Your task to perform on an android device: open chrome privacy settings Image 0: 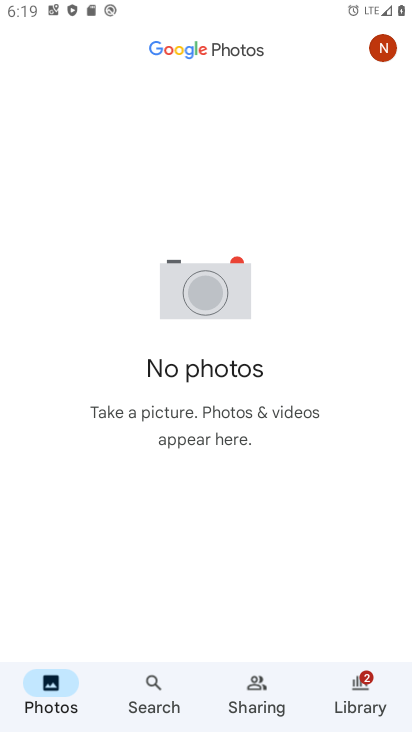
Step 0: press home button
Your task to perform on an android device: open chrome privacy settings Image 1: 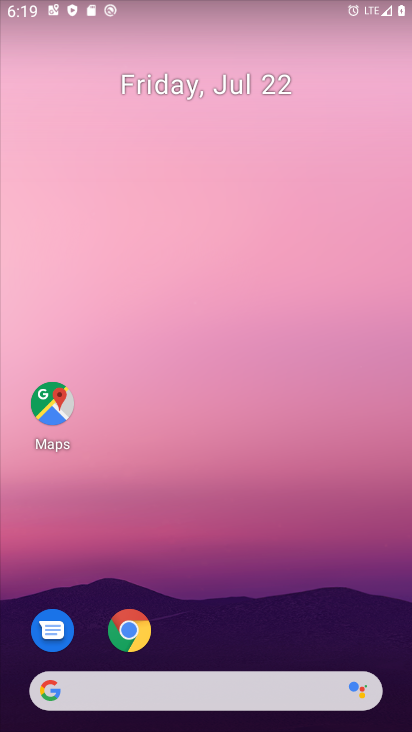
Step 1: drag from (284, 708) to (285, 194)
Your task to perform on an android device: open chrome privacy settings Image 2: 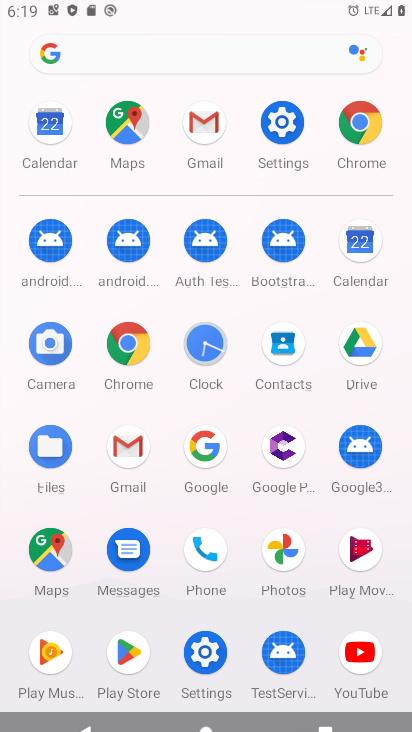
Step 2: click (285, 118)
Your task to perform on an android device: open chrome privacy settings Image 3: 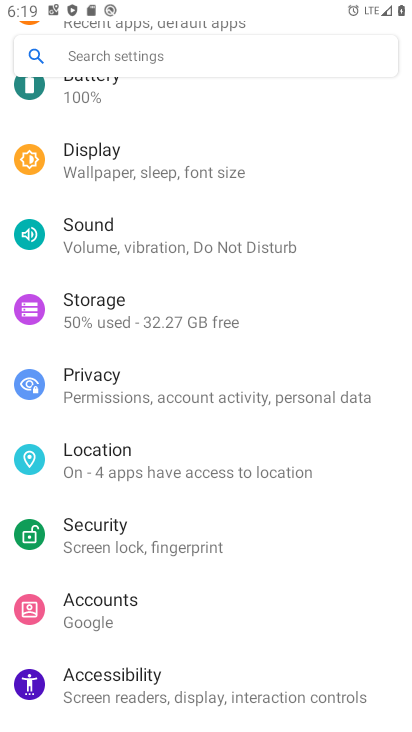
Step 3: click (138, 393)
Your task to perform on an android device: open chrome privacy settings Image 4: 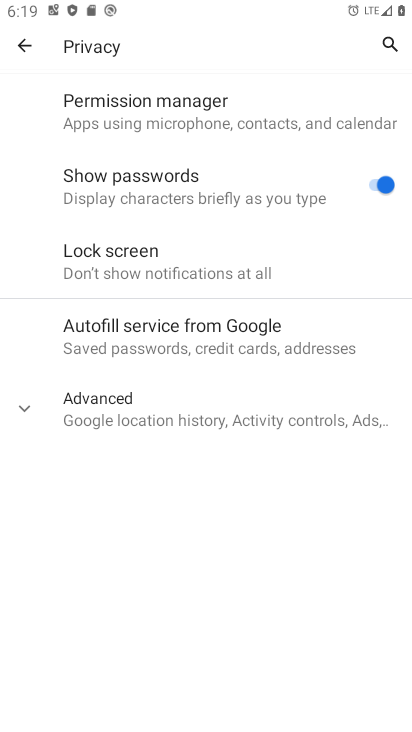
Step 4: press home button
Your task to perform on an android device: open chrome privacy settings Image 5: 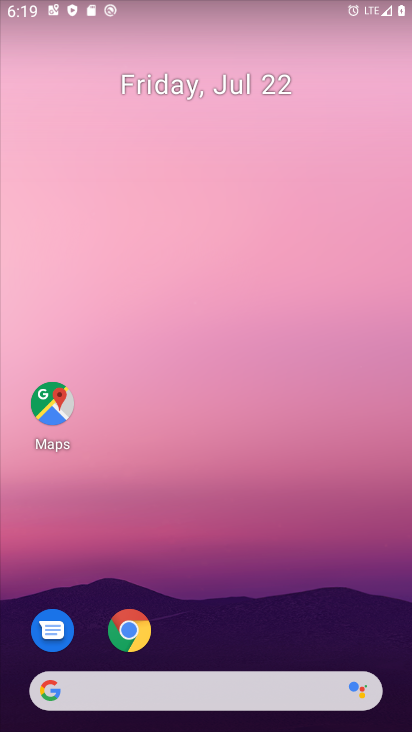
Step 5: drag from (246, 654) to (217, 33)
Your task to perform on an android device: open chrome privacy settings Image 6: 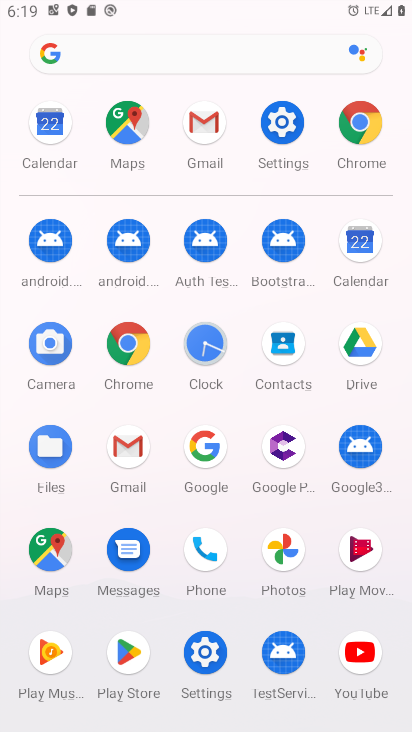
Step 6: click (130, 347)
Your task to perform on an android device: open chrome privacy settings Image 7: 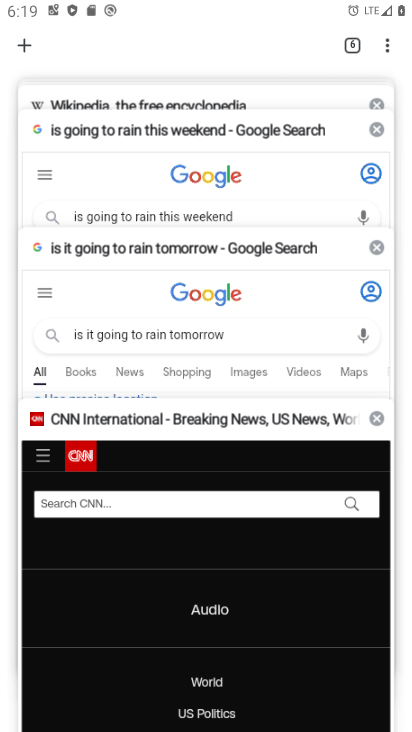
Step 7: drag from (389, 51) to (283, 179)
Your task to perform on an android device: open chrome privacy settings Image 8: 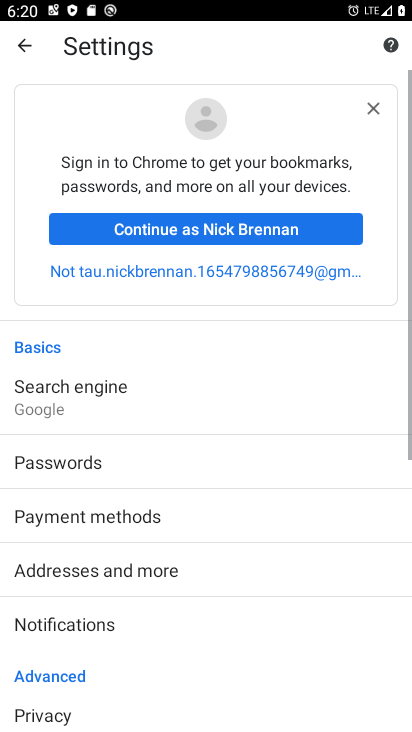
Step 8: drag from (209, 646) to (246, 371)
Your task to perform on an android device: open chrome privacy settings Image 9: 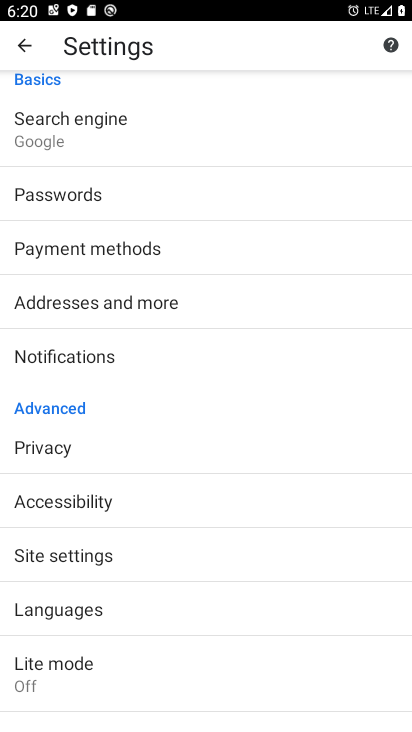
Step 9: click (100, 455)
Your task to perform on an android device: open chrome privacy settings Image 10: 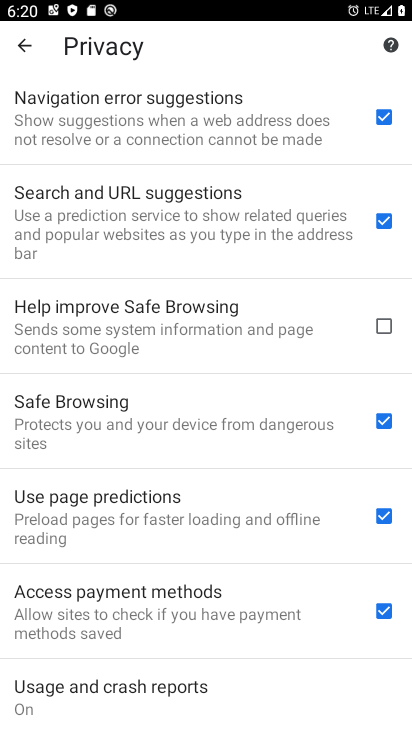
Step 10: task complete